Your task to perform on an android device: Open the calendar and show me this week's events Image 0: 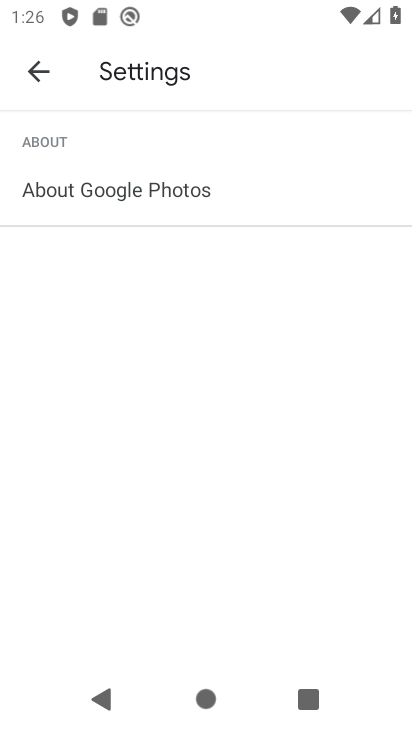
Step 0: press home button
Your task to perform on an android device: Open the calendar and show me this week's events Image 1: 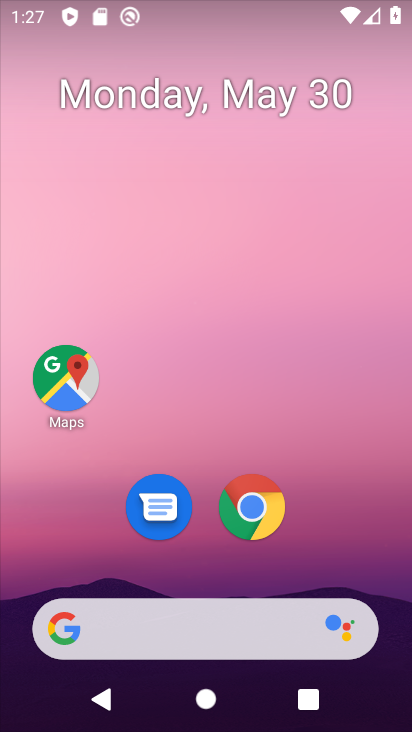
Step 1: drag from (223, 554) to (183, 2)
Your task to perform on an android device: Open the calendar and show me this week's events Image 2: 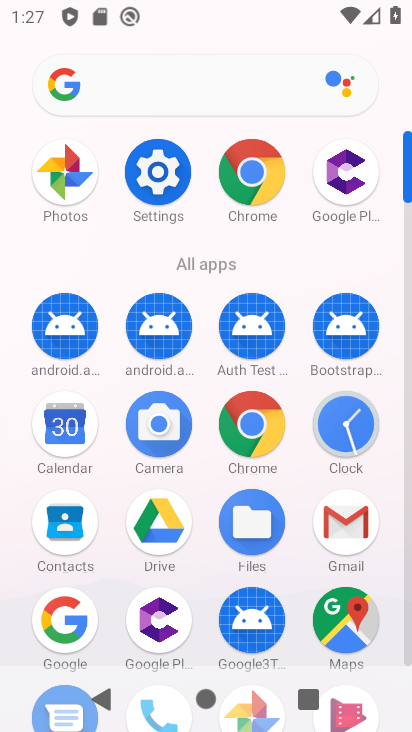
Step 2: drag from (257, 565) to (261, 132)
Your task to perform on an android device: Open the calendar and show me this week's events Image 3: 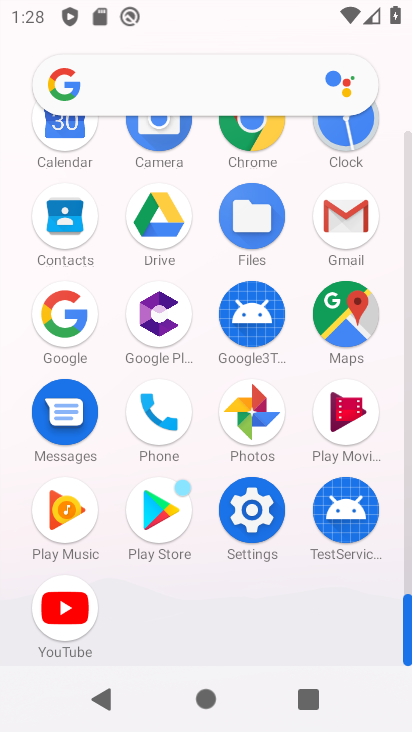
Step 3: click (78, 156)
Your task to perform on an android device: Open the calendar and show me this week's events Image 4: 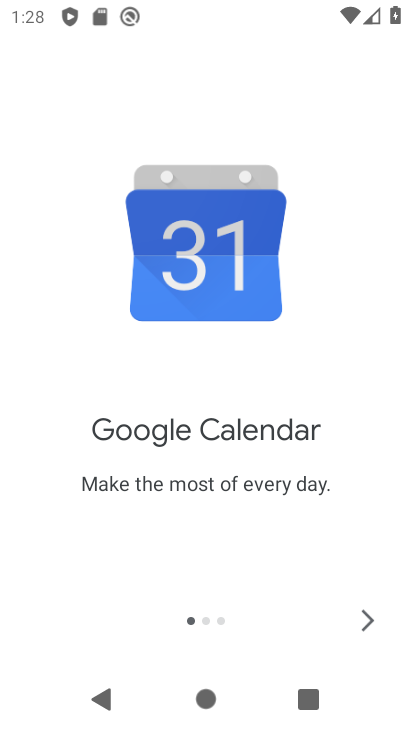
Step 4: drag from (343, 645) to (367, 620)
Your task to perform on an android device: Open the calendar and show me this week's events Image 5: 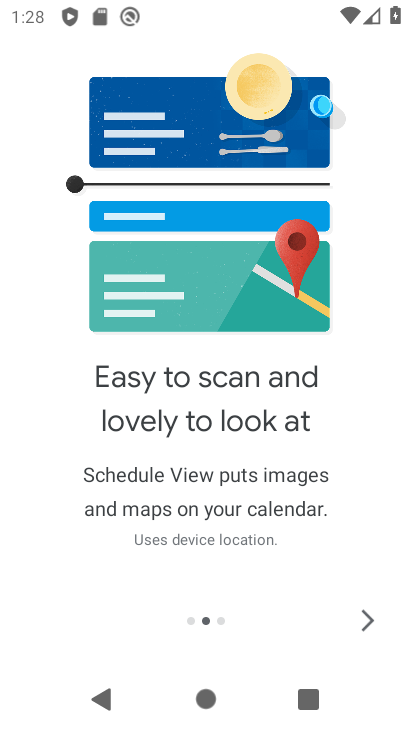
Step 5: click (371, 619)
Your task to perform on an android device: Open the calendar and show me this week's events Image 6: 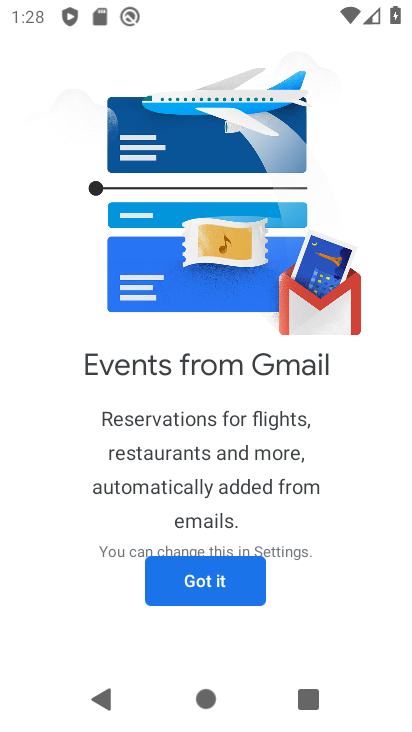
Step 6: click (371, 619)
Your task to perform on an android device: Open the calendar and show me this week's events Image 7: 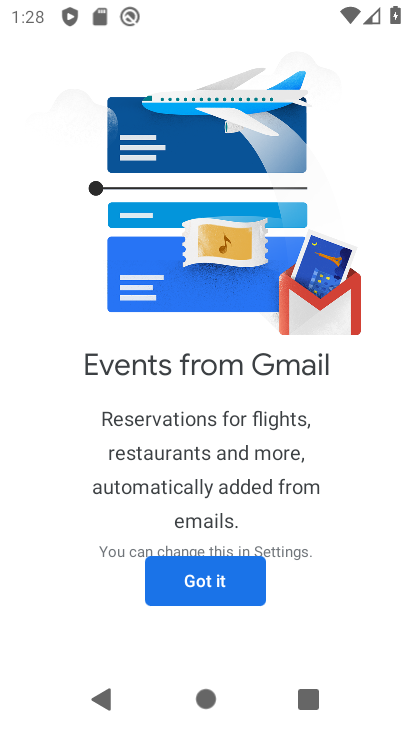
Step 7: click (215, 590)
Your task to perform on an android device: Open the calendar and show me this week's events Image 8: 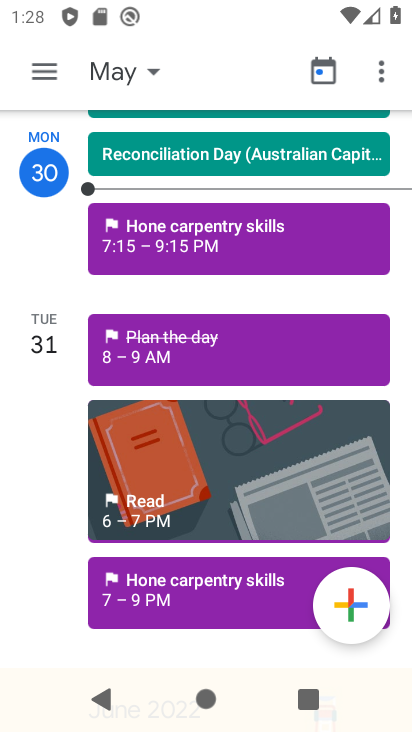
Step 8: click (35, 77)
Your task to perform on an android device: Open the calendar and show me this week's events Image 9: 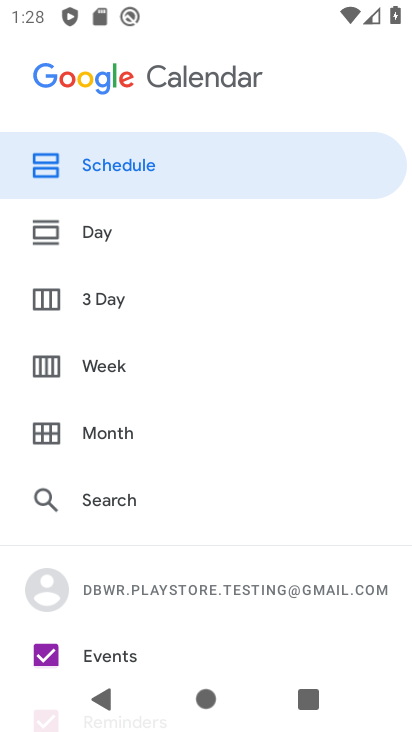
Step 9: click (127, 369)
Your task to perform on an android device: Open the calendar and show me this week's events Image 10: 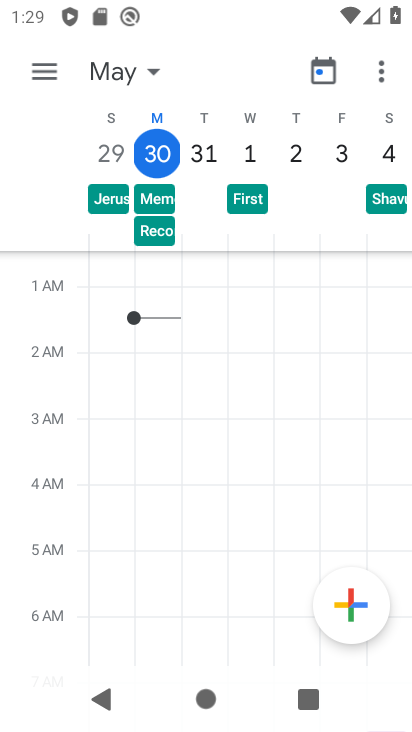
Step 10: task complete